Your task to perform on an android device: Go to wifi settings Image 0: 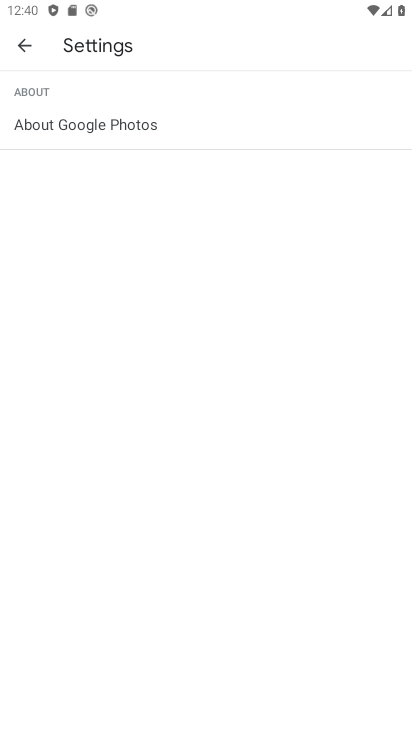
Step 0: press home button
Your task to perform on an android device: Go to wifi settings Image 1: 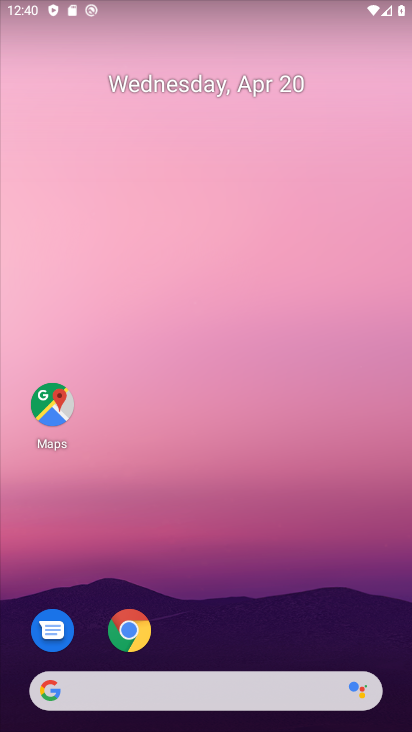
Step 1: drag from (342, 609) to (330, 290)
Your task to perform on an android device: Go to wifi settings Image 2: 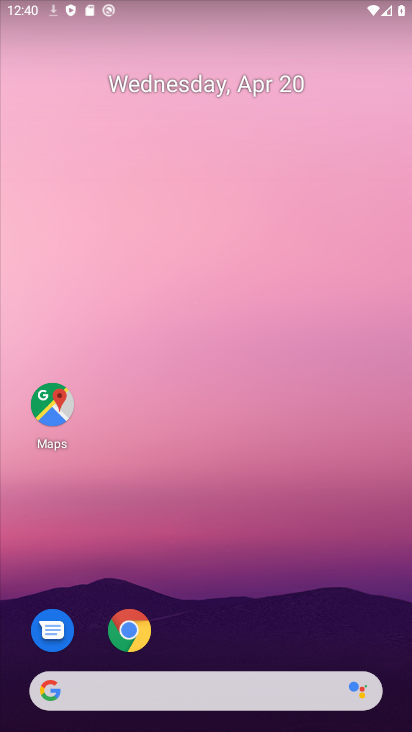
Step 2: drag from (314, 566) to (299, 141)
Your task to perform on an android device: Go to wifi settings Image 3: 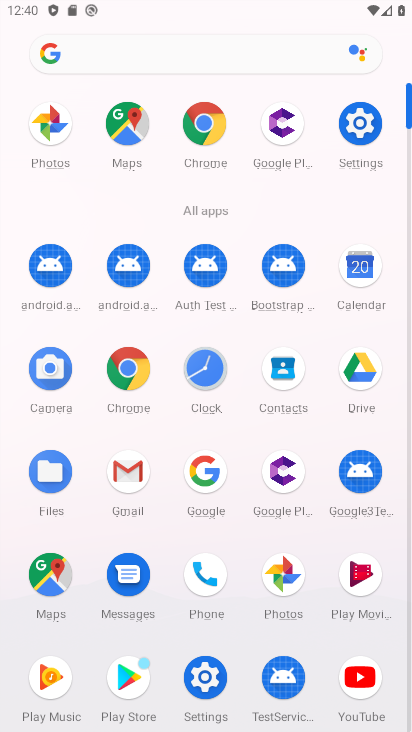
Step 3: click (356, 143)
Your task to perform on an android device: Go to wifi settings Image 4: 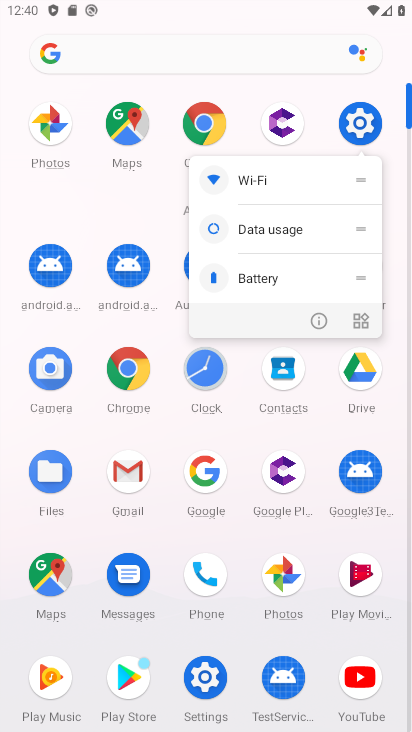
Step 4: click (259, 177)
Your task to perform on an android device: Go to wifi settings Image 5: 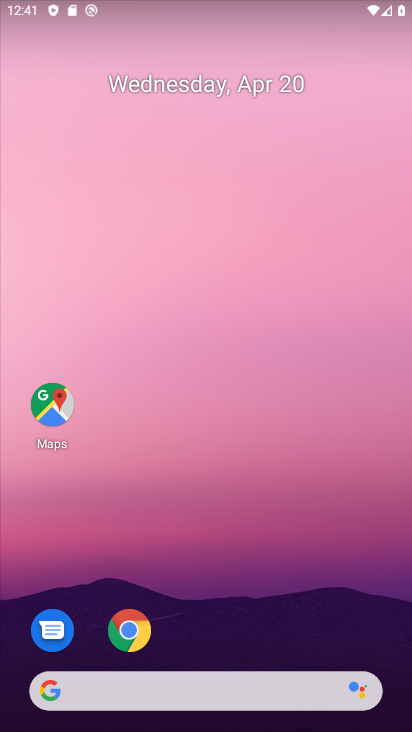
Step 5: drag from (284, 581) to (309, 180)
Your task to perform on an android device: Go to wifi settings Image 6: 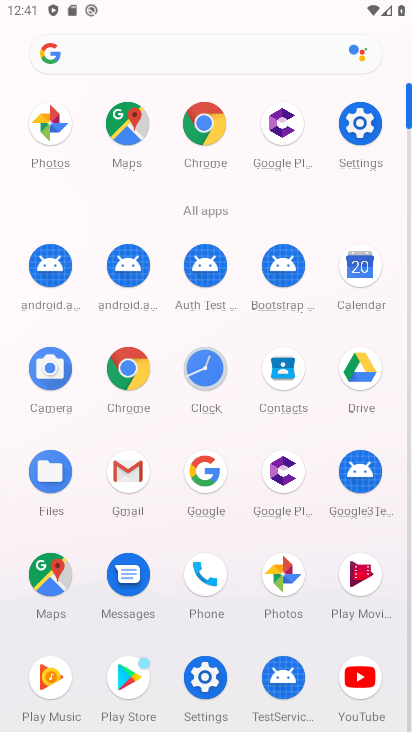
Step 6: click (359, 129)
Your task to perform on an android device: Go to wifi settings Image 7: 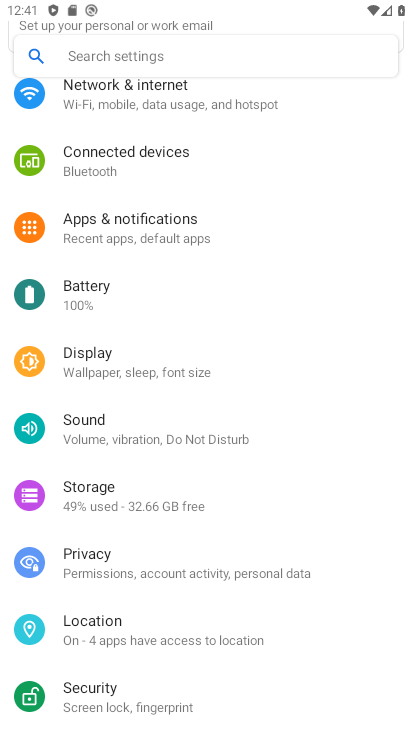
Step 7: click (165, 102)
Your task to perform on an android device: Go to wifi settings Image 8: 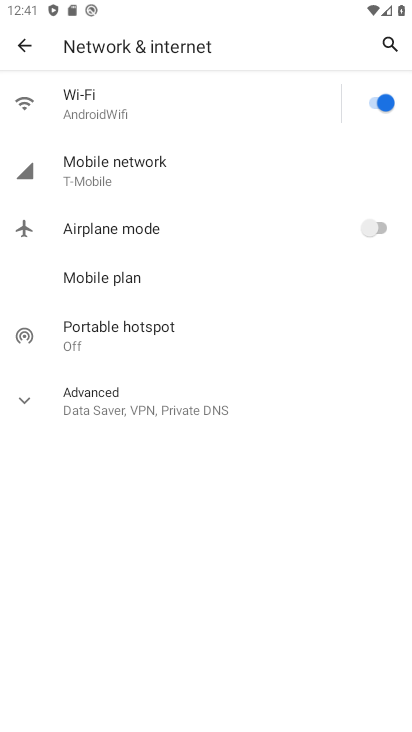
Step 8: click (158, 112)
Your task to perform on an android device: Go to wifi settings Image 9: 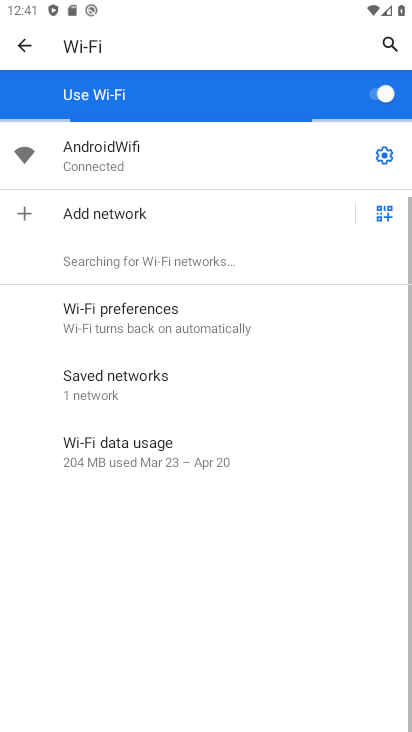
Step 9: click (384, 146)
Your task to perform on an android device: Go to wifi settings Image 10: 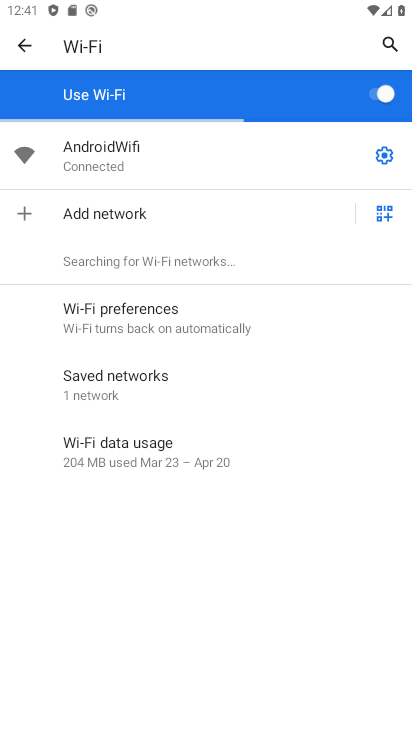
Step 10: click (381, 155)
Your task to perform on an android device: Go to wifi settings Image 11: 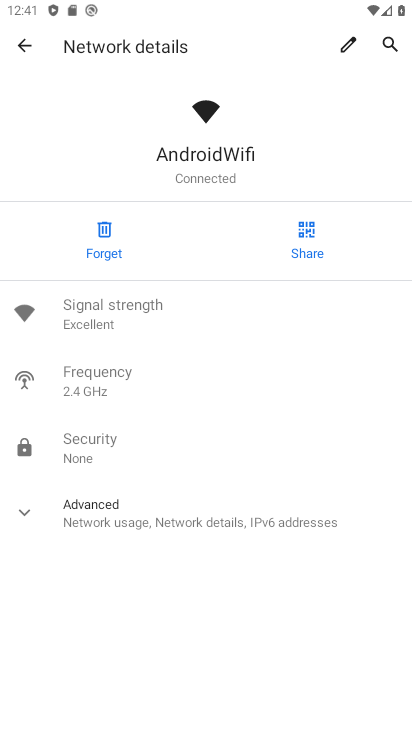
Step 11: task complete